Your task to perform on an android device: snooze an email in the gmail app Image 0: 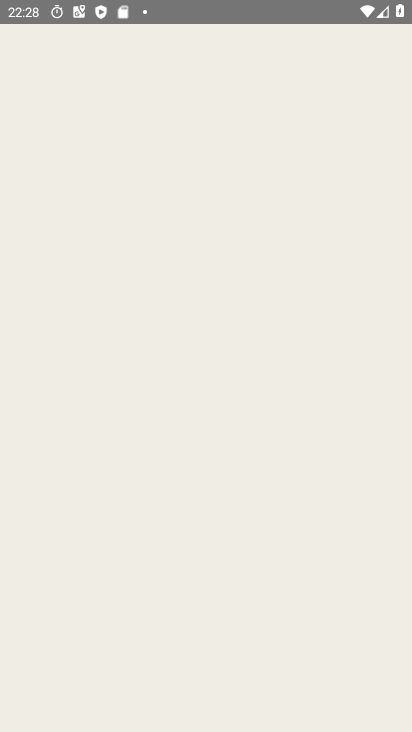
Step 0: press home button
Your task to perform on an android device: snooze an email in the gmail app Image 1: 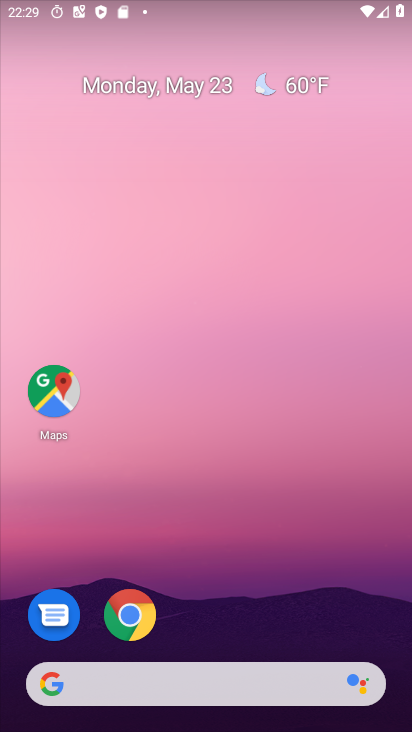
Step 1: drag from (224, 620) to (210, 104)
Your task to perform on an android device: snooze an email in the gmail app Image 2: 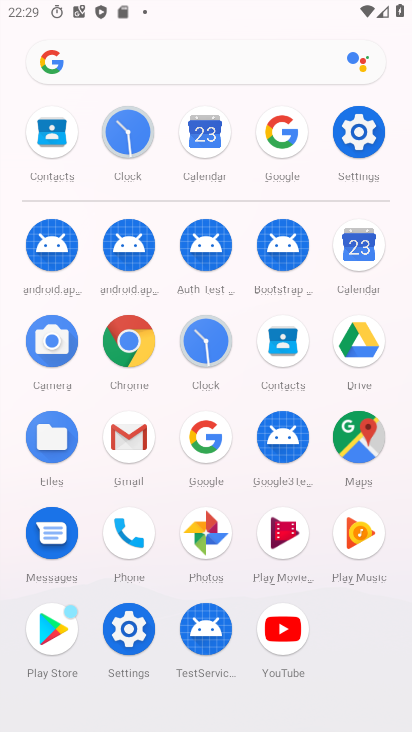
Step 2: click (138, 433)
Your task to perform on an android device: snooze an email in the gmail app Image 3: 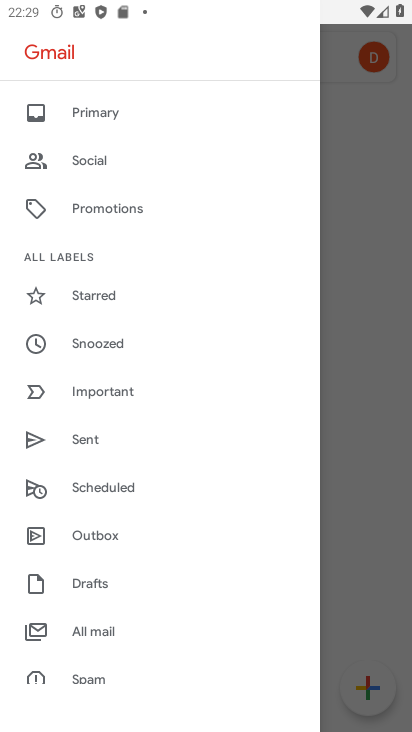
Step 3: click (98, 638)
Your task to perform on an android device: snooze an email in the gmail app Image 4: 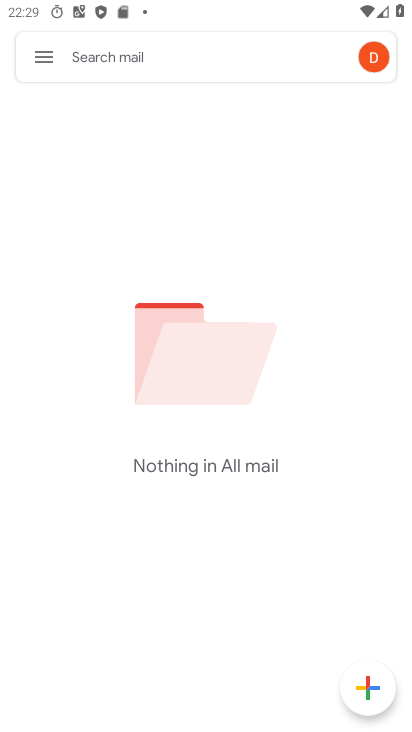
Step 4: task complete